Your task to perform on an android device: change notifications settings Image 0: 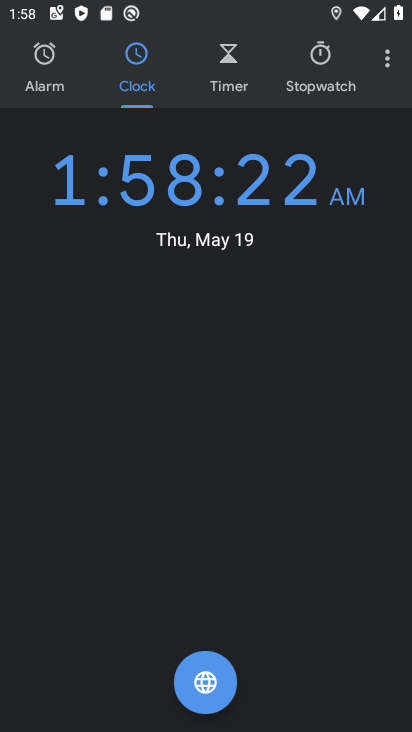
Step 0: press home button
Your task to perform on an android device: change notifications settings Image 1: 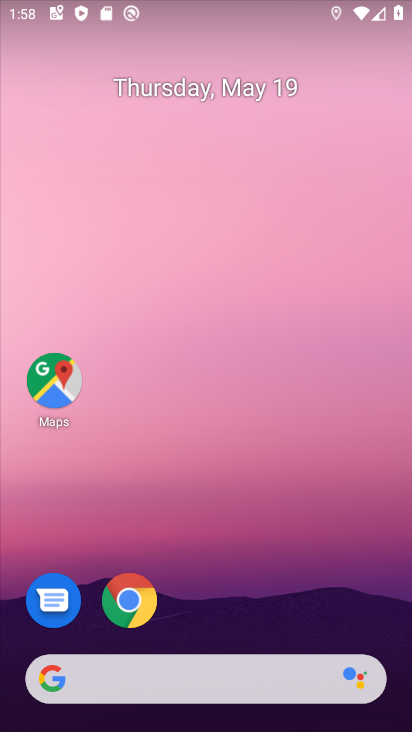
Step 1: drag from (84, 457) to (229, 135)
Your task to perform on an android device: change notifications settings Image 2: 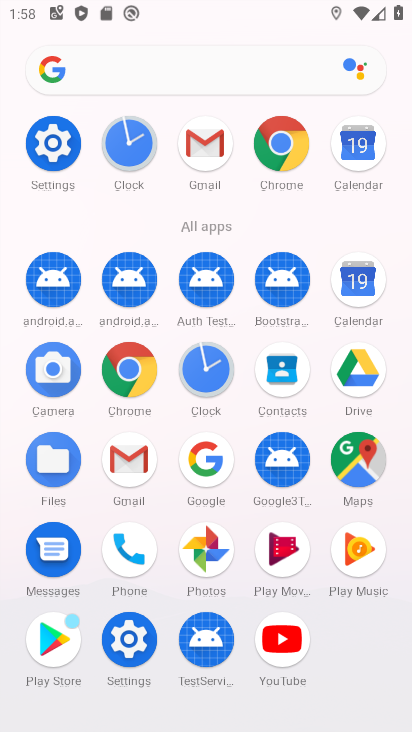
Step 2: click (55, 162)
Your task to perform on an android device: change notifications settings Image 3: 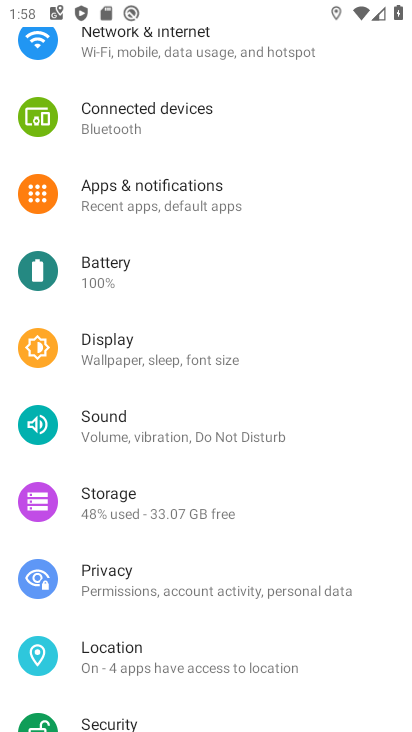
Step 3: click (152, 198)
Your task to perform on an android device: change notifications settings Image 4: 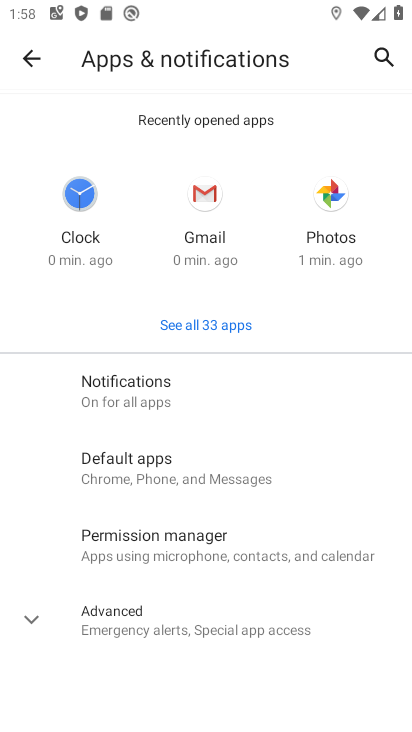
Step 4: click (155, 399)
Your task to perform on an android device: change notifications settings Image 5: 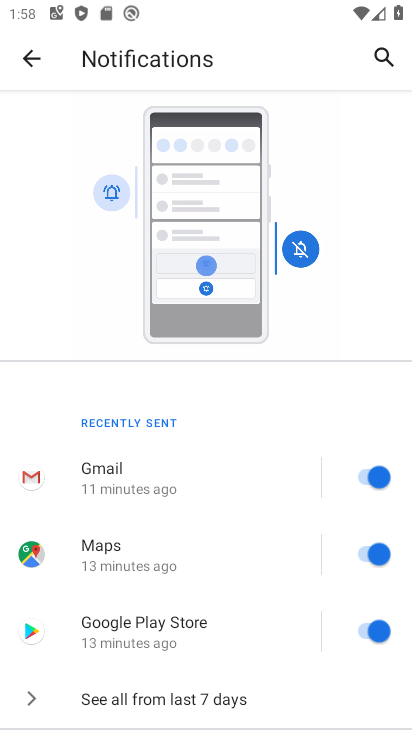
Step 5: drag from (36, 552) to (149, 159)
Your task to perform on an android device: change notifications settings Image 6: 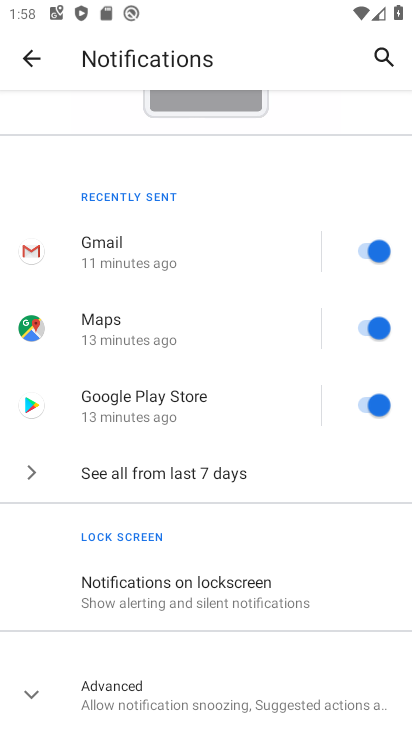
Step 6: click (169, 583)
Your task to perform on an android device: change notifications settings Image 7: 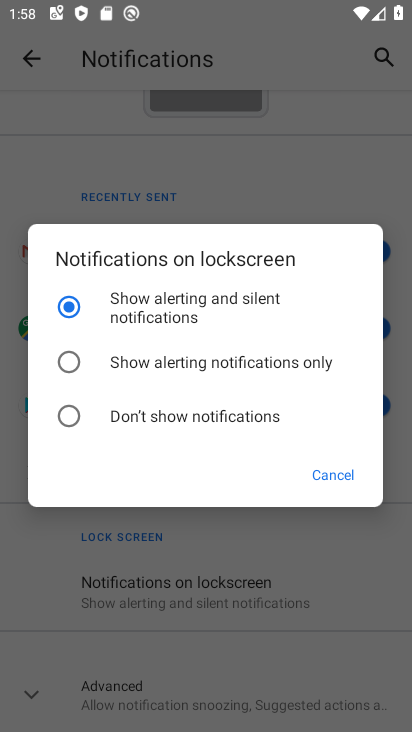
Step 7: click (329, 493)
Your task to perform on an android device: change notifications settings Image 8: 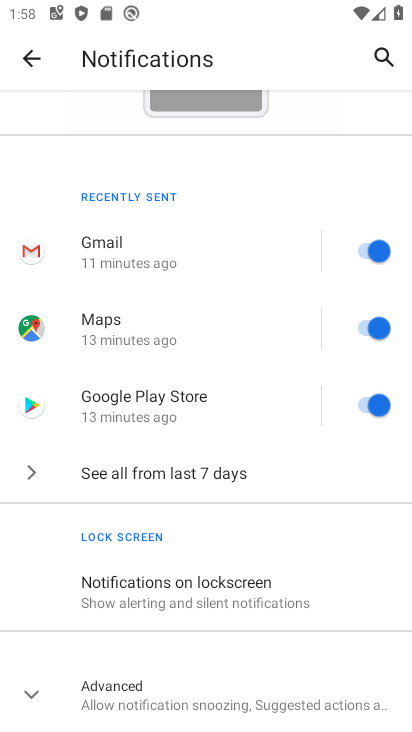
Step 8: task complete